Your task to perform on an android device: Search for seafood restaurants on Google Maps Image 0: 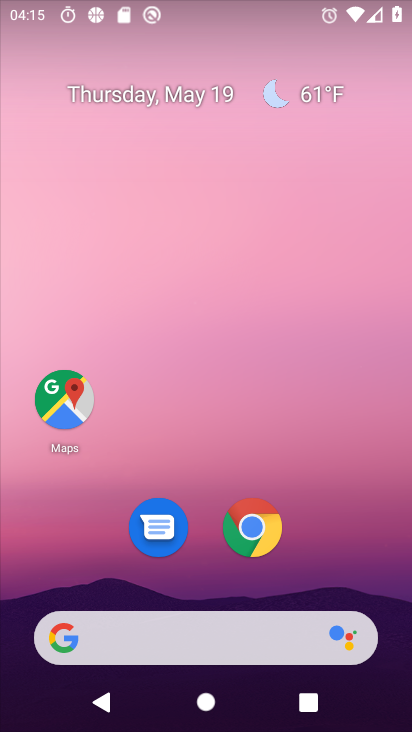
Step 0: click (75, 406)
Your task to perform on an android device: Search for seafood restaurants on Google Maps Image 1: 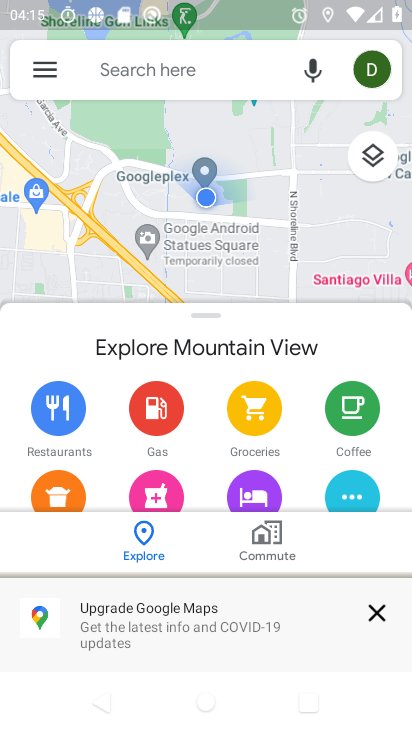
Step 1: click (142, 81)
Your task to perform on an android device: Search for seafood restaurants on Google Maps Image 2: 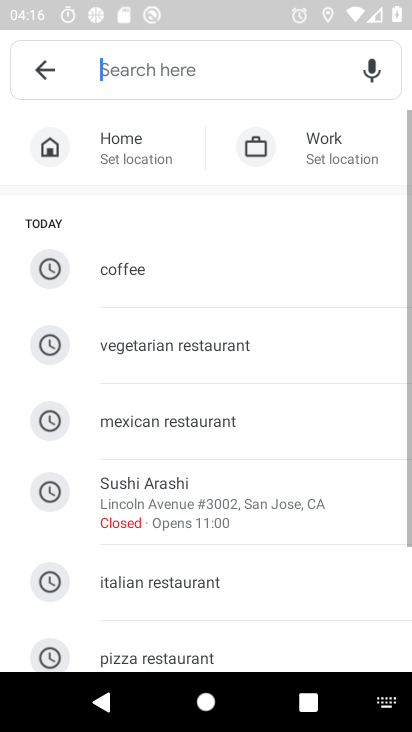
Step 2: drag from (185, 522) to (287, 146)
Your task to perform on an android device: Search for seafood restaurants on Google Maps Image 3: 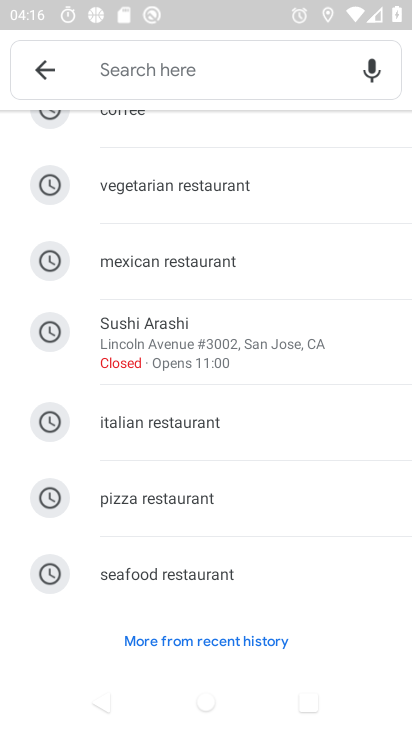
Step 3: click (153, 576)
Your task to perform on an android device: Search for seafood restaurants on Google Maps Image 4: 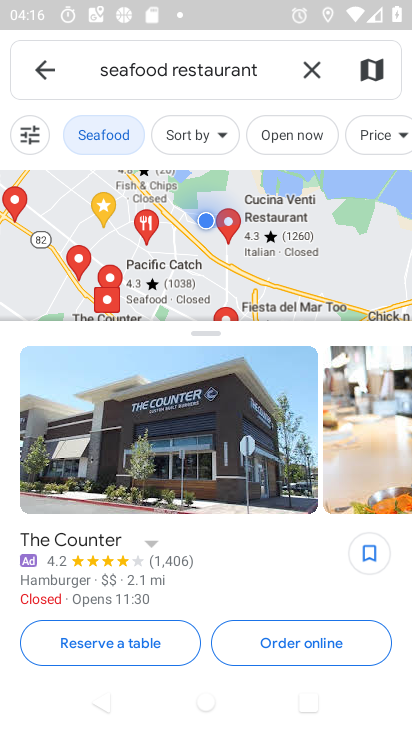
Step 4: task complete